Your task to perform on an android device: Open settings on Google Maps Image 0: 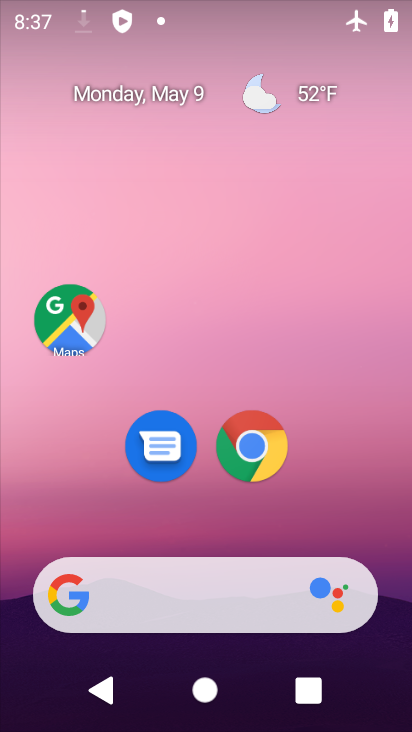
Step 0: click (68, 316)
Your task to perform on an android device: Open settings on Google Maps Image 1: 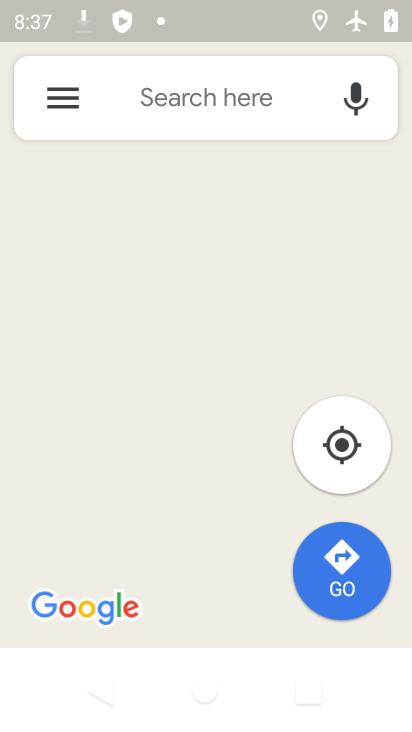
Step 1: drag from (124, 205) to (135, 13)
Your task to perform on an android device: Open settings on Google Maps Image 2: 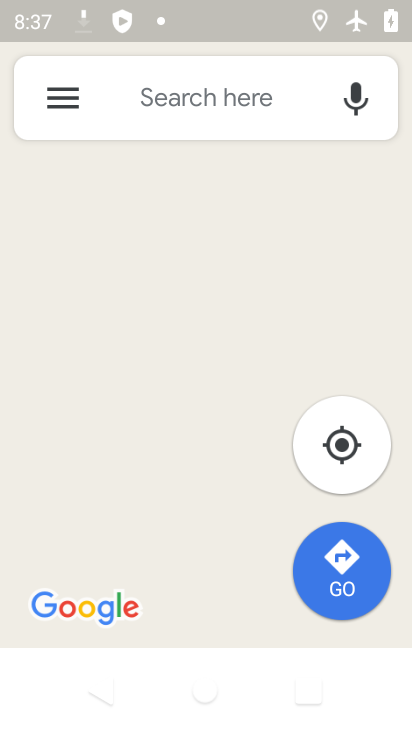
Step 2: drag from (153, 424) to (204, 29)
Your task to perform on an android device: Open settings on Google Maps Image 3: 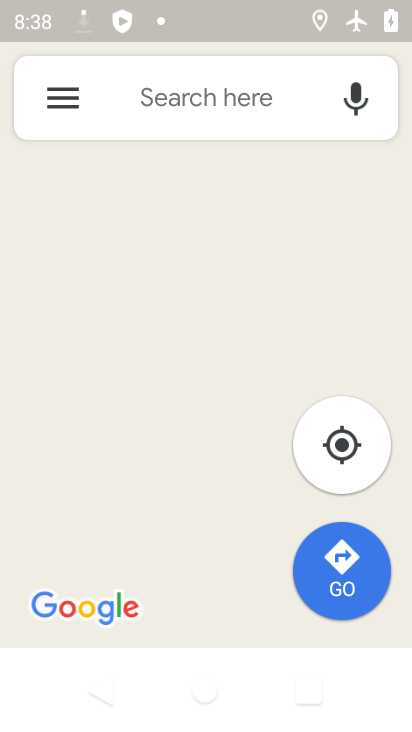
Step 3: click (59, 96)
Your task to perform on an android device: Open settings on Google Maps Image 4: 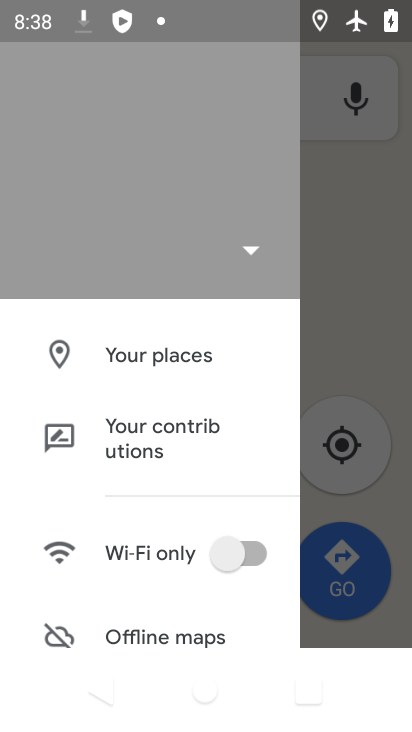
Step 4: drag from (147, 557) to (172, 243)
Your task to perform on an android device: Open settings on Google Maps Image 5: 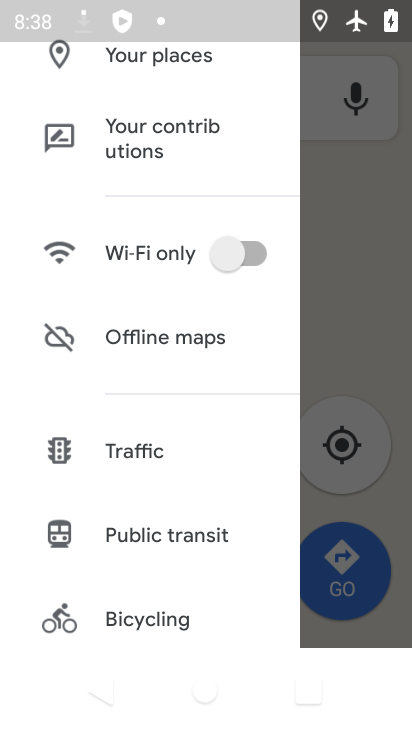
Step 5: drag from (170, 597) to (179, 211)
Your task to perform on an android device: Open settings on Google Maps Image 6: 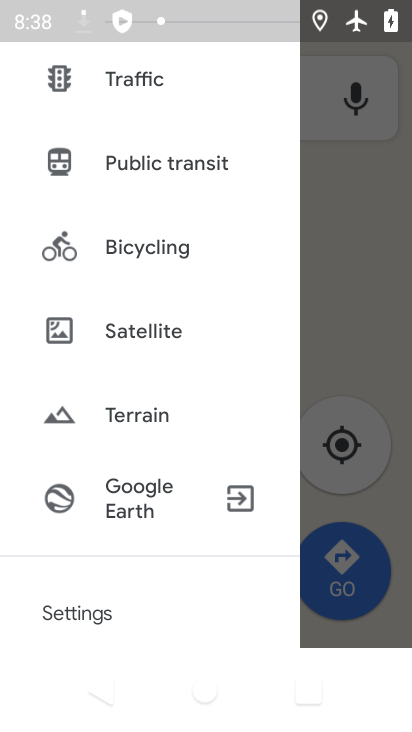
Step 6: drag from (132, 565) to (170, 151)
Your task to perform on an android device: Open settings on Google Maps Image 7: 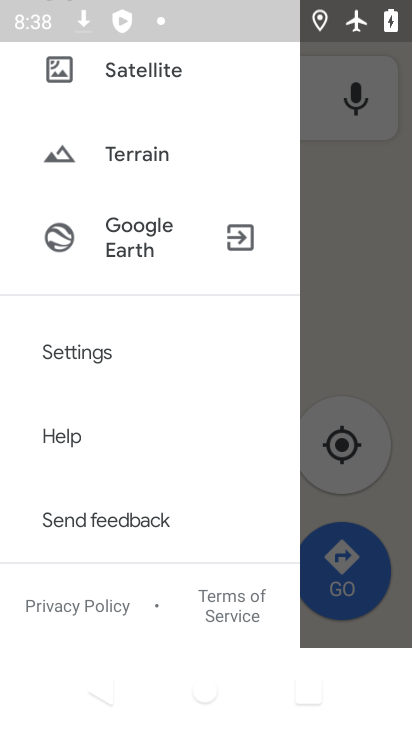
Step 7: click (69, 349)
Your task to perform on an android device: Open settings on Google Maps Image 8: 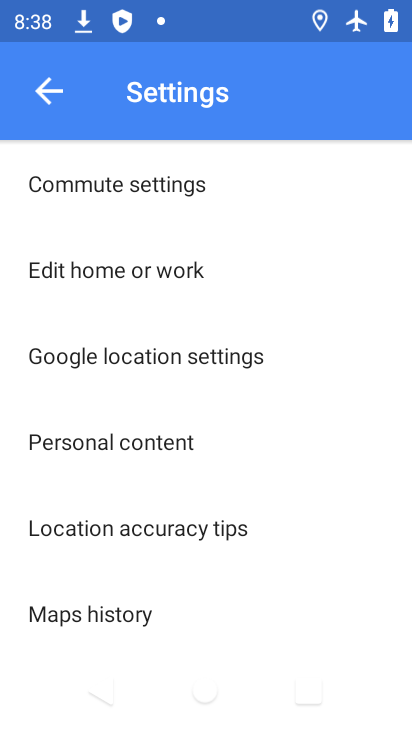
Step 8: task complete